Your task to perform on an android device: open a bookmark in the chrome app Image 0: 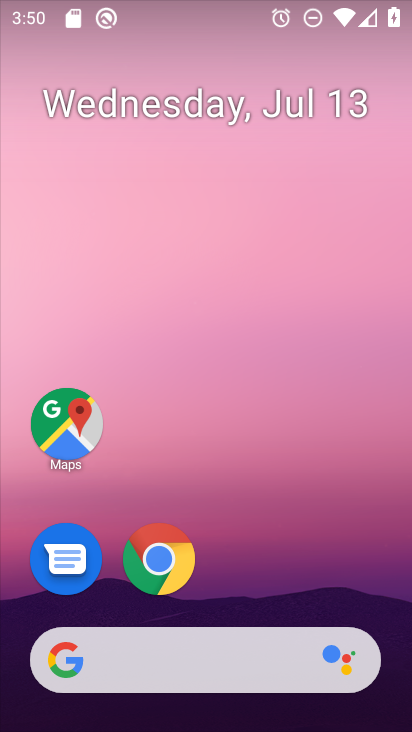
Step 0: drag from (363, 611) to (363, 188)
Your task to perform on an android device: open a bookmark in the chrome app Image 1: 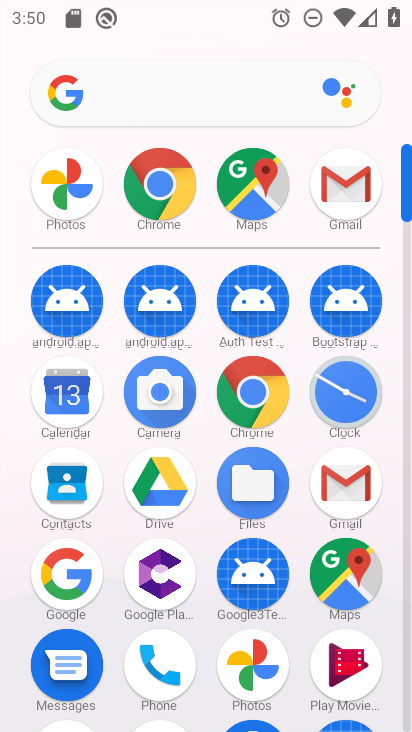
Step 1: click (265, 391)
Your task to perform on an android device: open a bookmark in the chrome app Image 2: 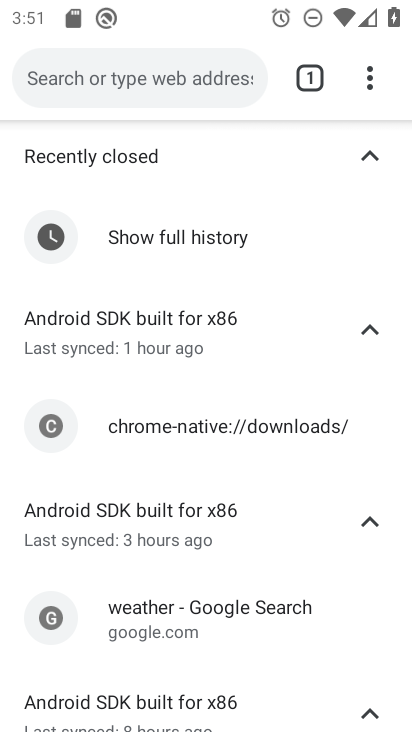
Step 2: click (370, 88)
Your task to perform on an android device: open a bookmark in the chrome app Image 3: 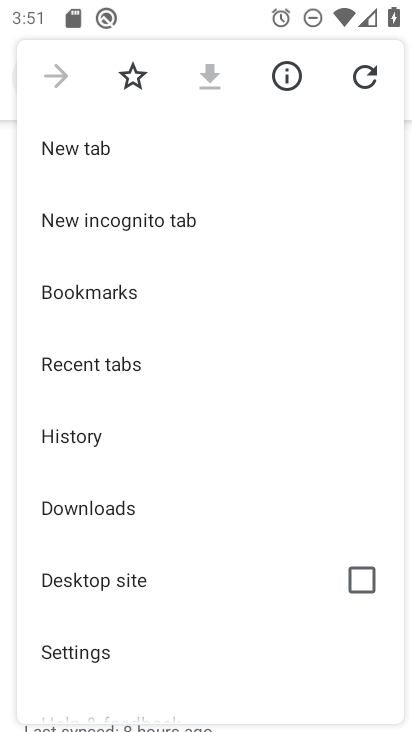
Step 3: click (189, 302)
Your task to perform on an android device: open a bookmark in the chrome app Image 4: 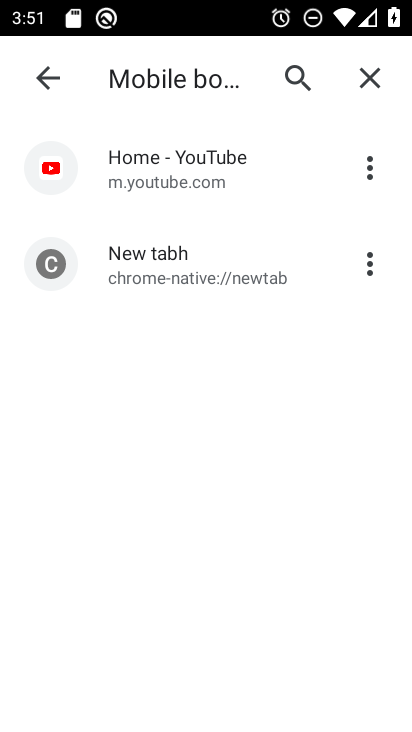
Step 4: click (166, 180)
Your task to perform on an android device: open a bookmark in the chrome app Image 5: 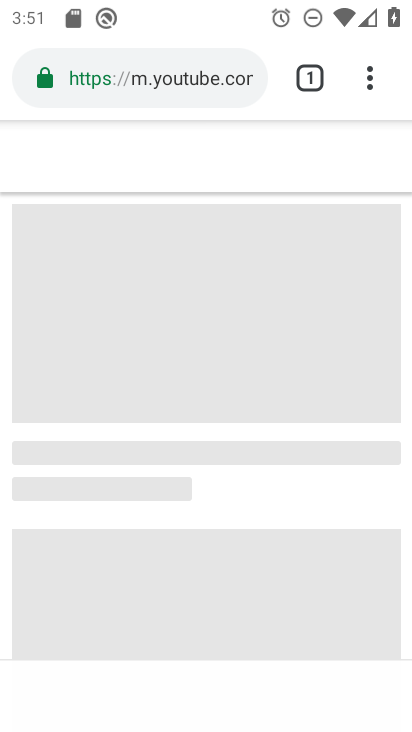
Step 5: task complete